Your task to perform on an android device: Go to settings Image 0: 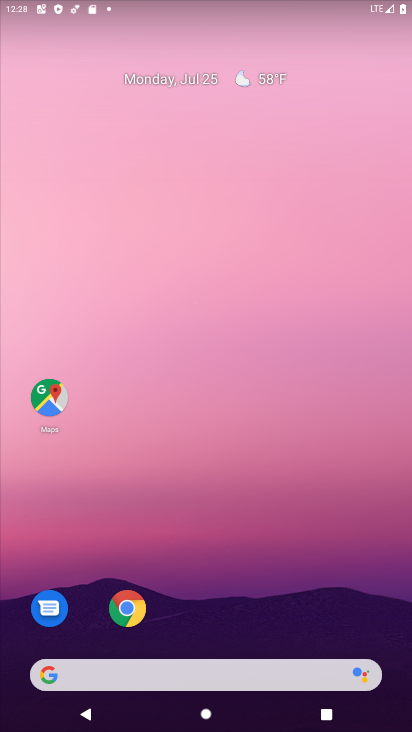
Step 0: drag from (198, 669) to (199, 102)
Your task to perform on an android device: Go to settings Image 1: 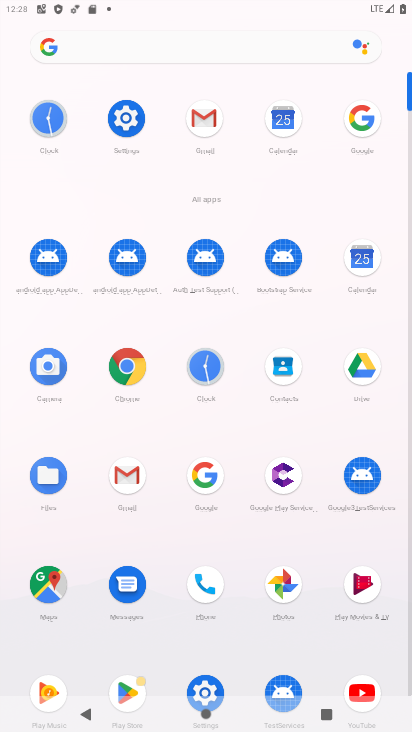
Step 1: click (125, 120)
Your task to perform on an android device: Go to settings Image 2: 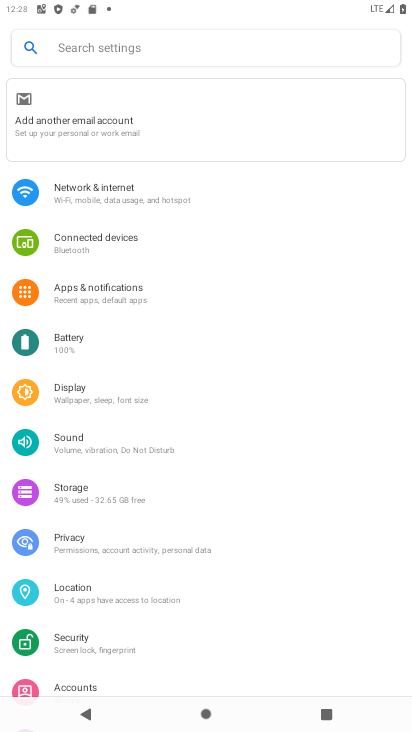
Step 2: task complete